Your task to perform on an android device: check battery use Image 0: 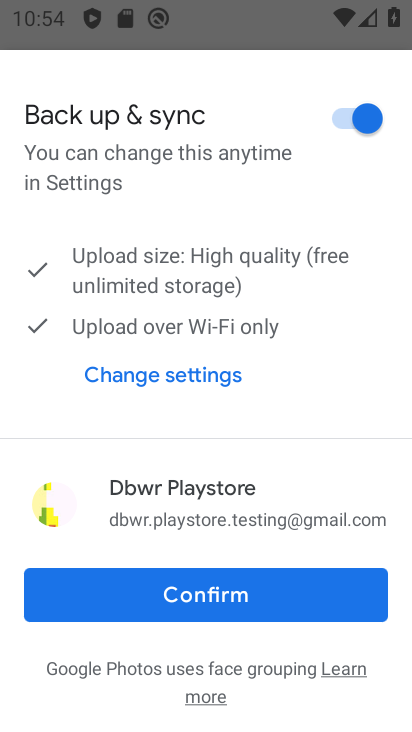
Step 0: press home button
Your task to perform on an android device: check battery use Image 1: 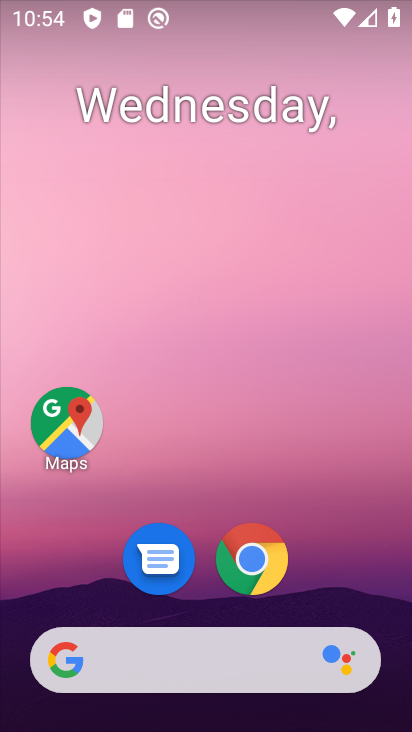
Step 1: drag from (197, 617) to (206, 153)
Your task to perform on an android device: check battery use Image 2: 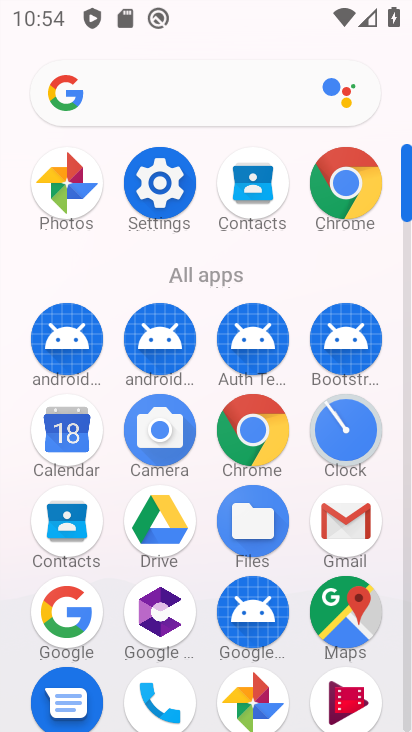
Step 2: click (150, 178)
Your task to perform on an android device: check battery use Image 3: 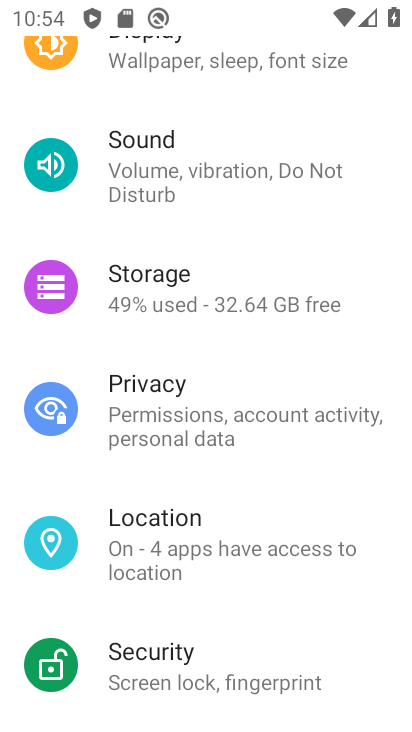
Step 3: drag from (196, 513) to (253, 87)
Your task to perform on an android device: check battery use Image 4: 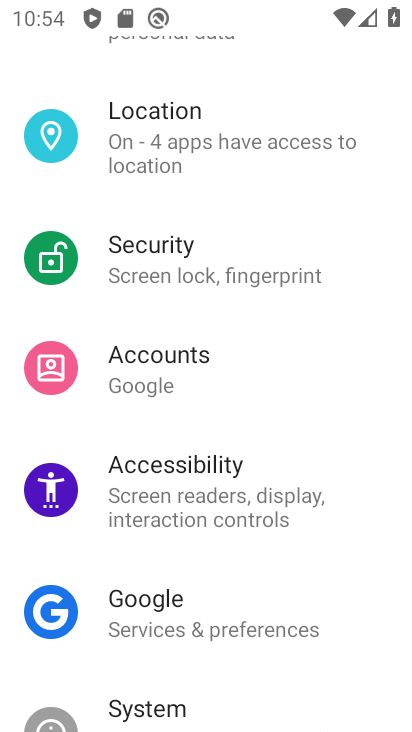
Step 4: drag from (201, 567) to (231, 265)
Your task to perform on an android device: check battery use Image 5: 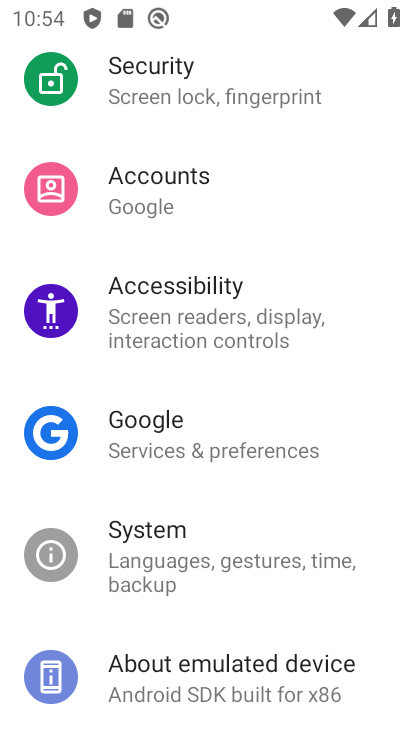
Step 5: drag from (232, 681) to (226, 534)
Your task to perform on an android device: check battery use Image 6: 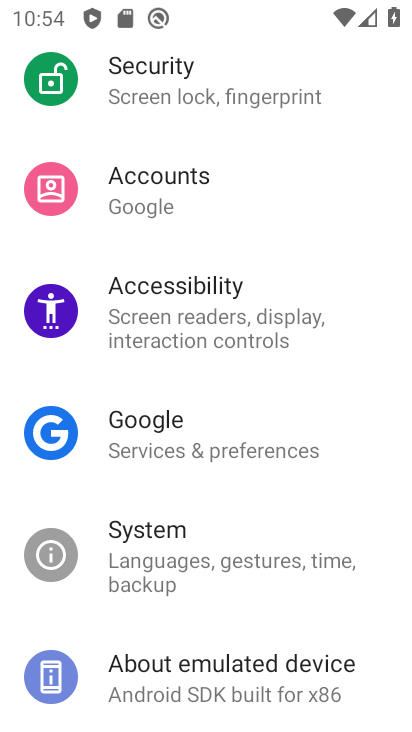
Step 6: drag from (290, 251) to (280, 725)
Your task to perform on an android device: check battery use Image 7: 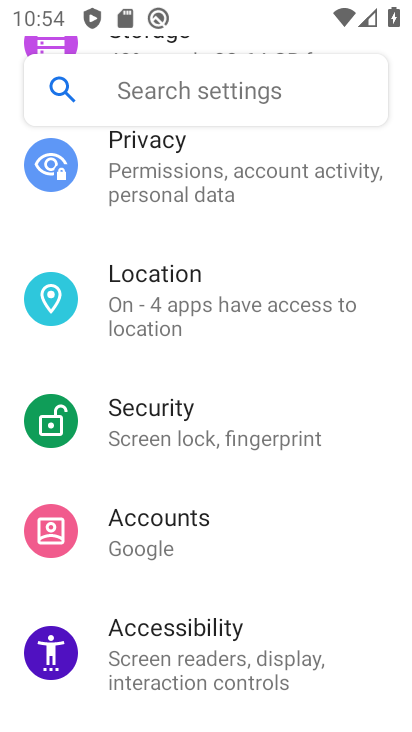
Step 7: drag from (257, 232) to (271, 689)
Your task to perform on an android device: check battery use Image 8: 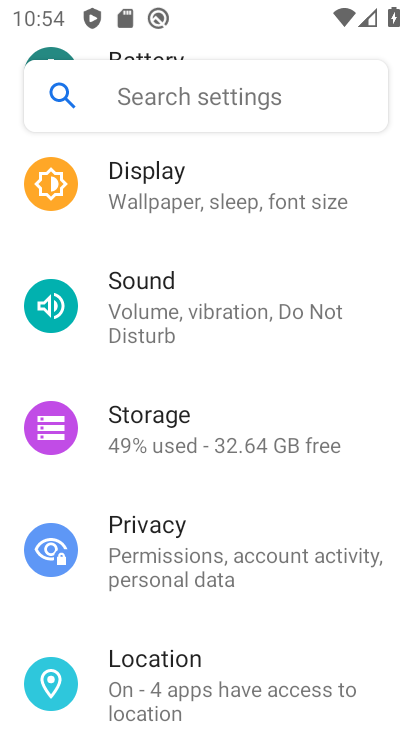
Step 8: drag from (244, 161) to (263, 601)
Your task to perform on an android device: check battery use Image 9: 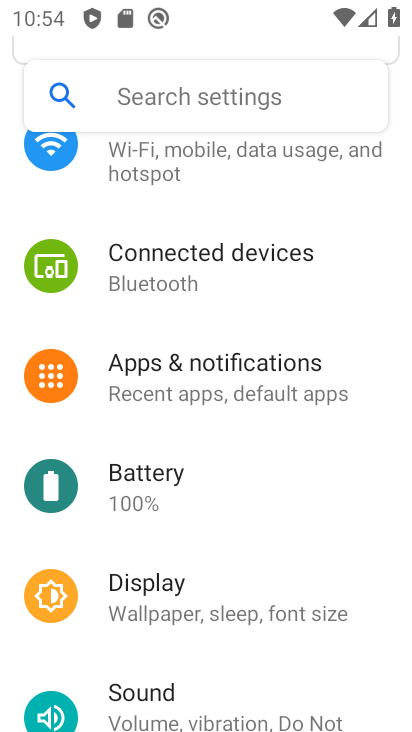
Step 9: click (177, 478)
Your task to perform on an android device: check battery use Image 10: 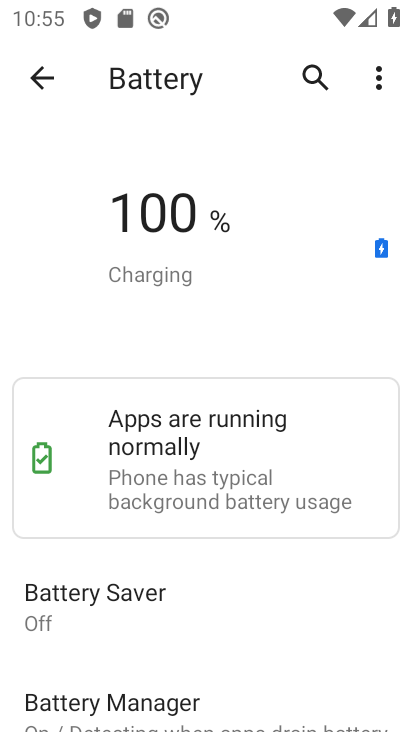
Step 10: task complete